Your task to perform on an android device: turn off data saver in the chrome app Image 0: 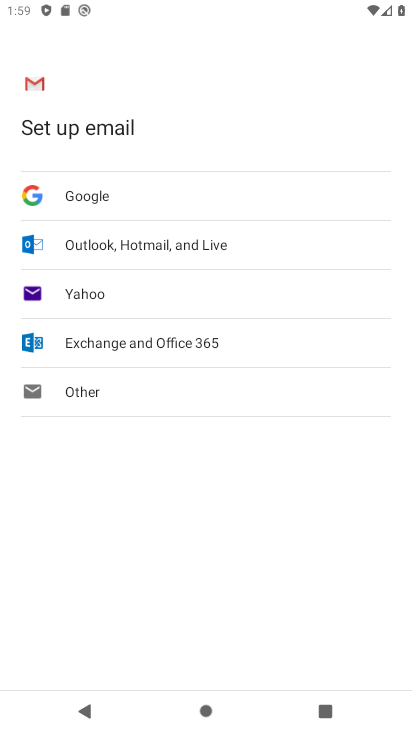
Step 0: press home button
Your task to perform on an android device: turn off data saver in the chrome app Image 1: 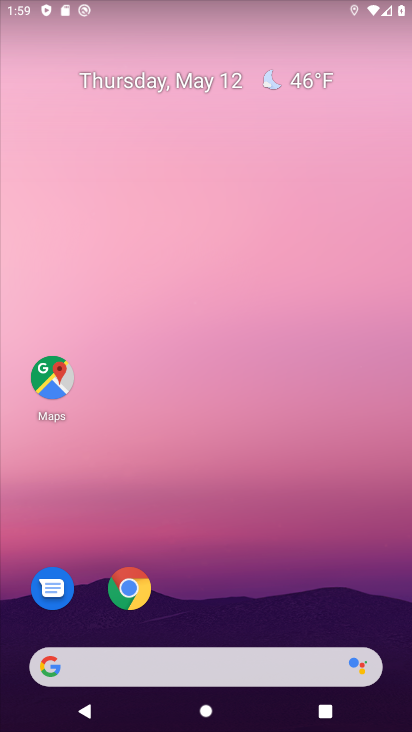
Step 1: drag from (375, 637) to (333, 51)
Your task to perform on an android device: turn off data saver in the chrome app Image 2: 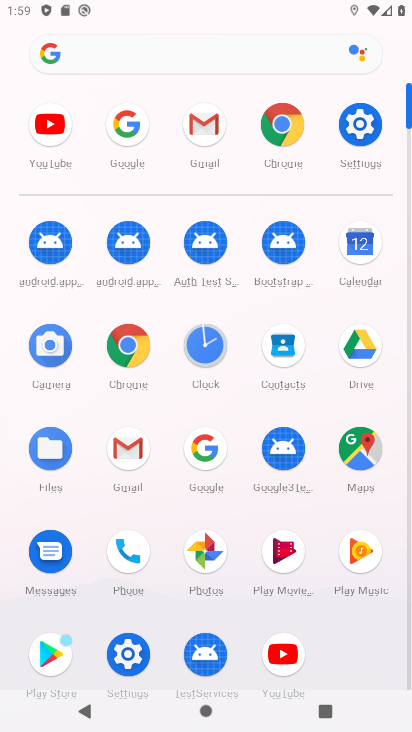
Step 2: click (130, 362)
Your task to perform on an android device: turn off data saver in the chrome app Image 3: 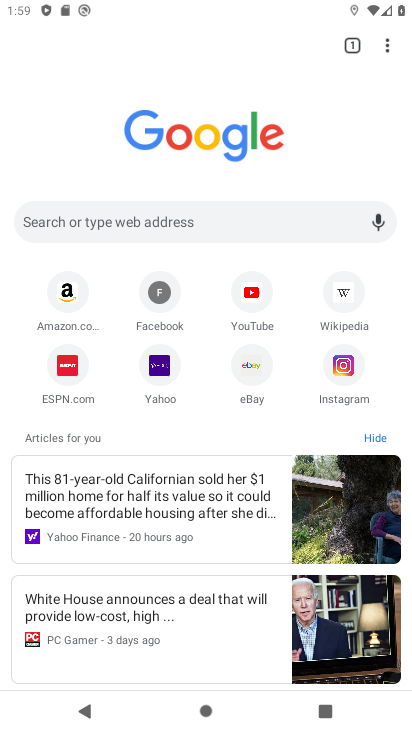
Step 3: click (389, 39)
Your task to perform on an android device: turn off data saver in the chrome app Image 4: 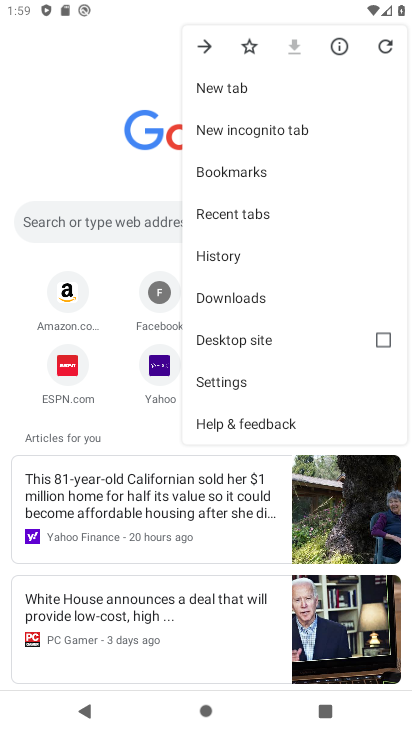
Step 4: click (218, 386)
Your task to perform on an android device: turn off data saver in the chrome app Image 5: 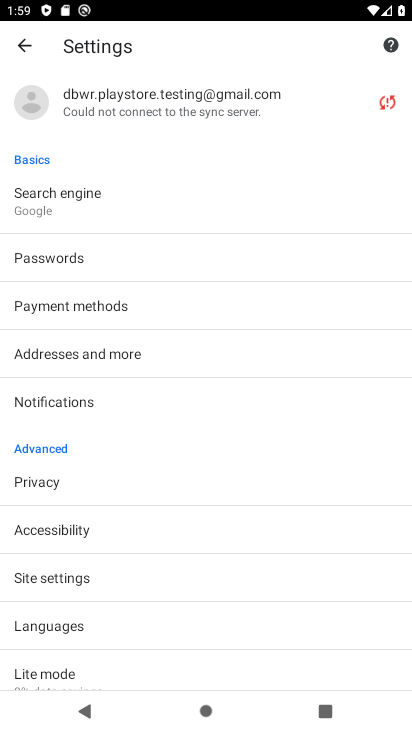
Step 5: click (102, 672)
Your task to perform on an android device: turn off data saver in the chrome app Image 6: 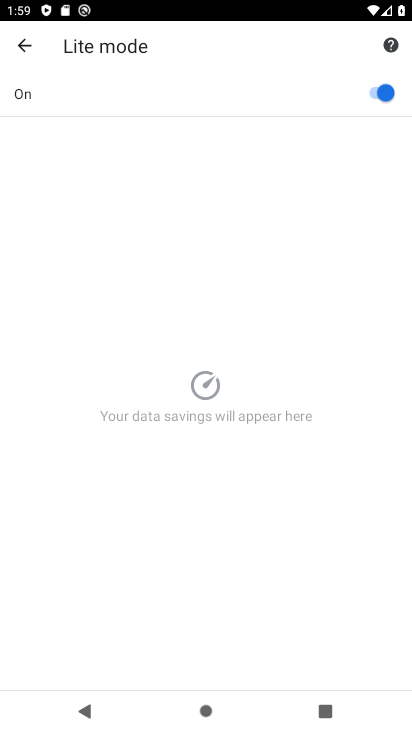
Step 6: click (374, 105)
Your task to perform on an android device: turn off data saver in the chrome app Image 7: 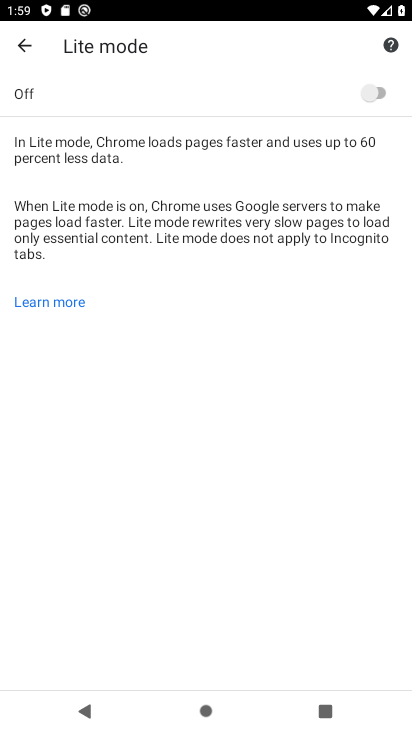
Step 7: task complete